Your task to perform on an android device: change alarm snooze length Image 0: 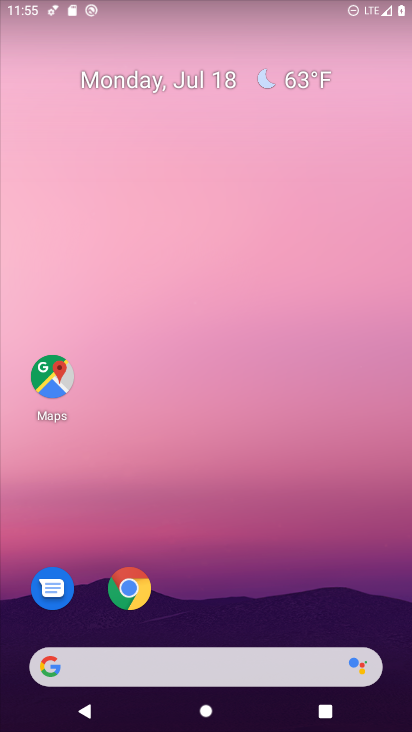
Step 0: click (310, 279)
Your task to perform on an android device: change alarm snooze length Image 1: 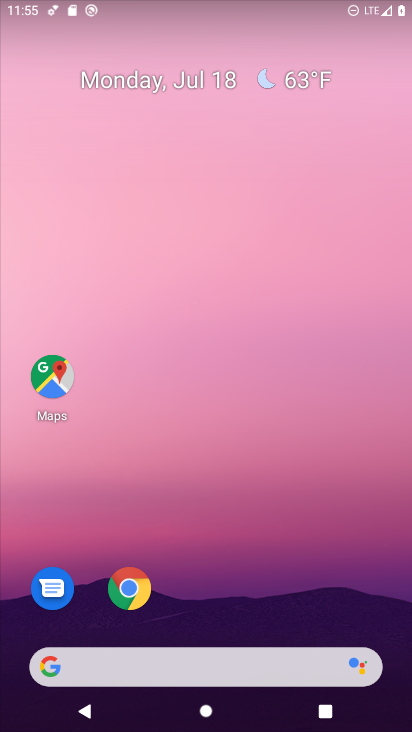
Step 1: drag from (236, 550) to (236, 228)
Your task to perform on an android device: change alarm snooze length Image 2: 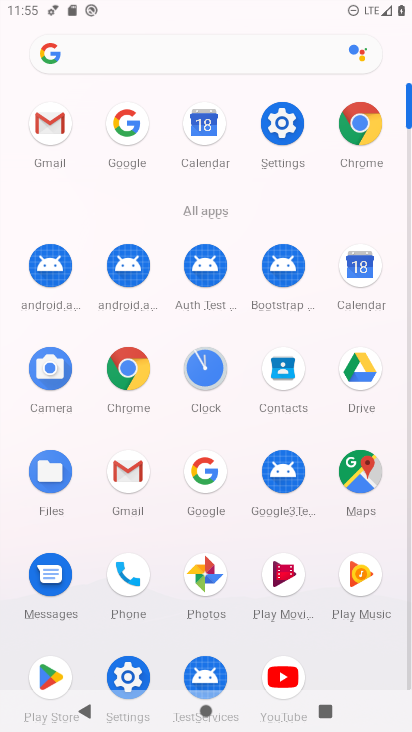
Step 2: click (201, 372)
Your task to perform on an android device: change alarm snooze length Image 3: 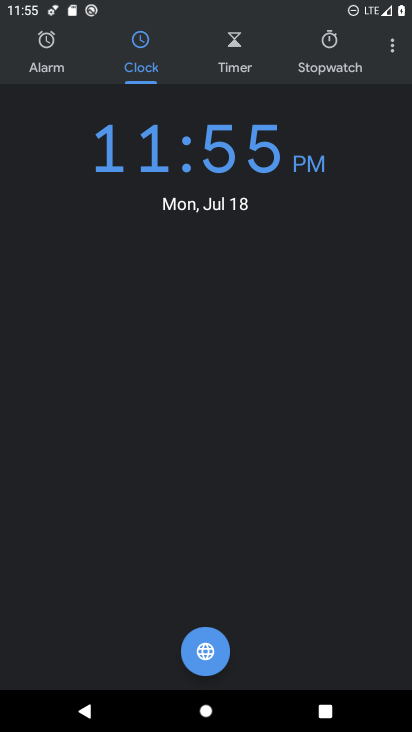
Step 3: click (391, 48)
Your task to perform on an android device: change alarm snooze length Image 4: 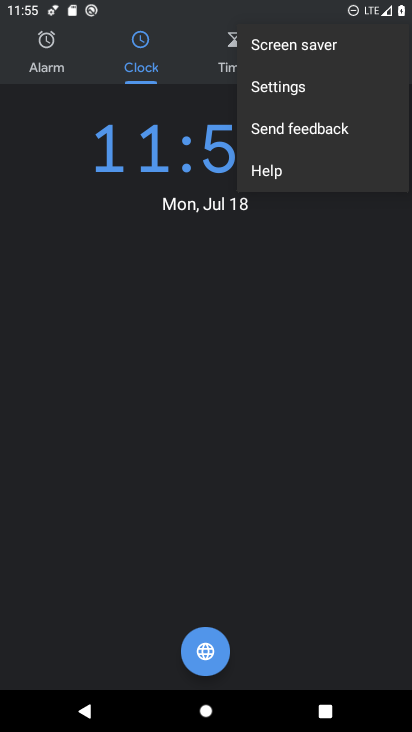
Step 4: click (304, 90)
Your task to perform on an android device: change alarm snooze length Image 5: 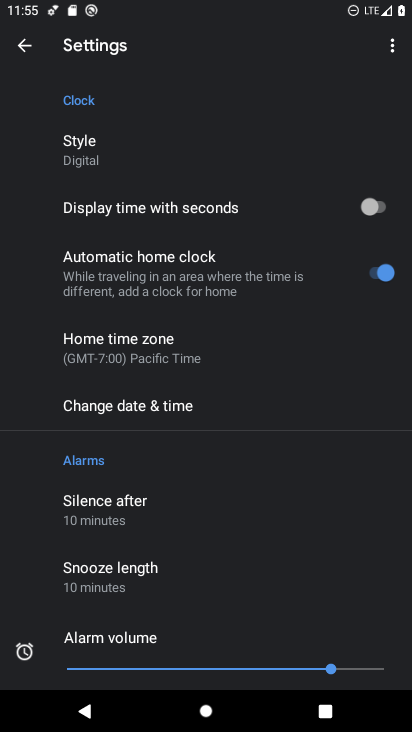
Step 5: click (133, 577)
Your task to perform on an android device: change alarm snooze length Image 6: 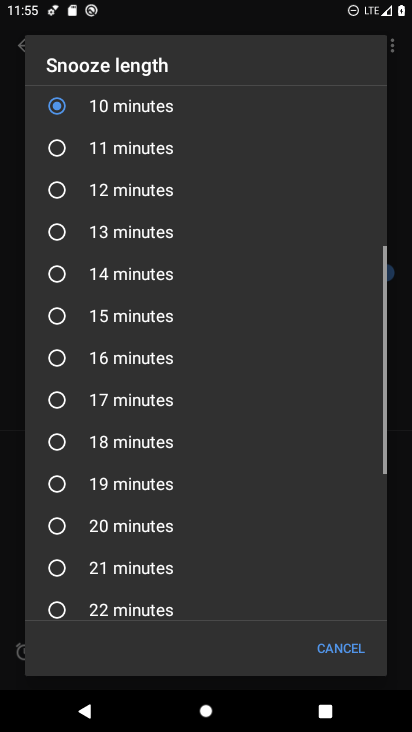
Step 6: click (132, 442)
Your task to perform on an android device: change alarm snooze length Image 7: 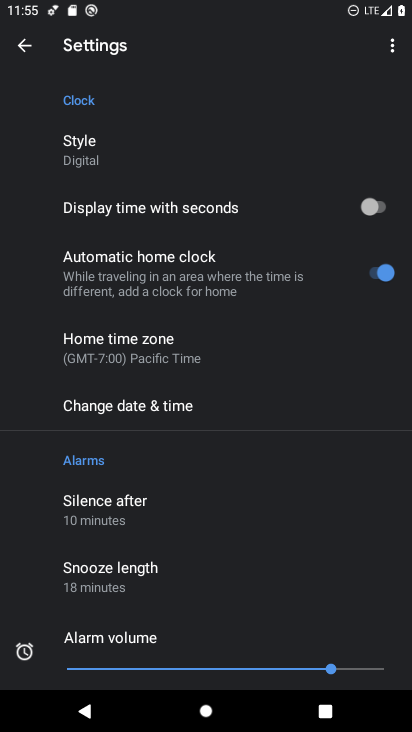
Step 7: task complete